Your task to perform on an android device: Go to ESPN.com Image 0: 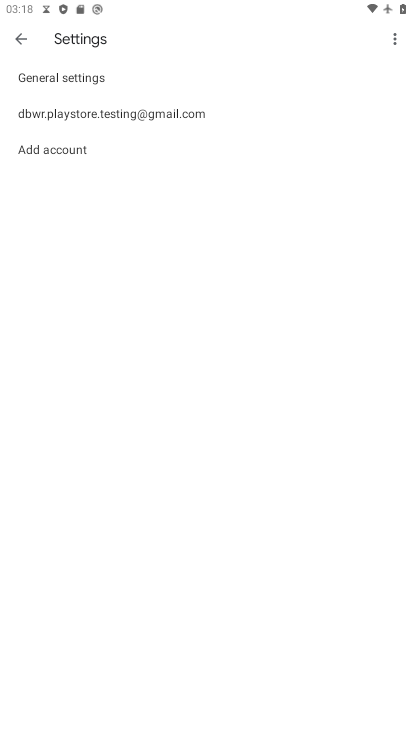
Step 0: press home button
Your task to perform on an android device: Go to ESPN.com Image 1: 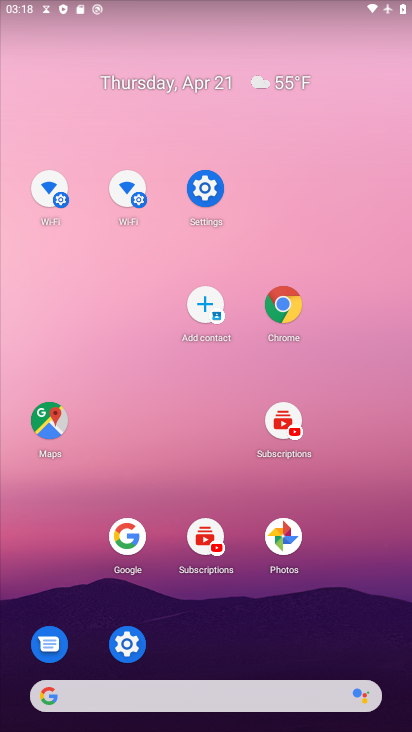
Step 1: drag from (76, 322) to (10, 130)
Your task to perform on an android device: Go to ESPN.com Image 2: 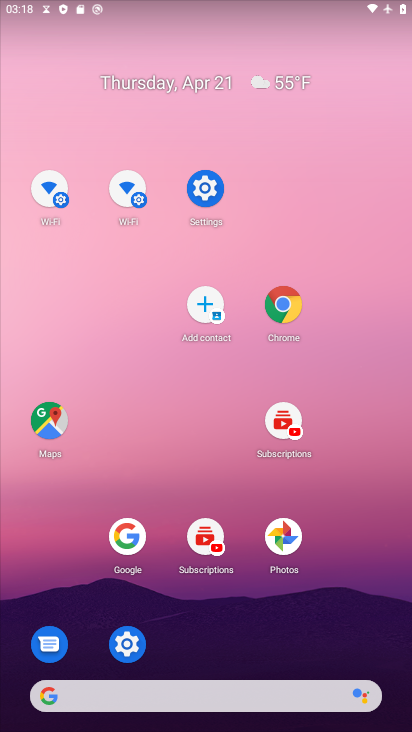
Step 2: drag from (259, 577) to (135, 27)
Your task to perform on an android device: Go to ESPN.com Image 3: 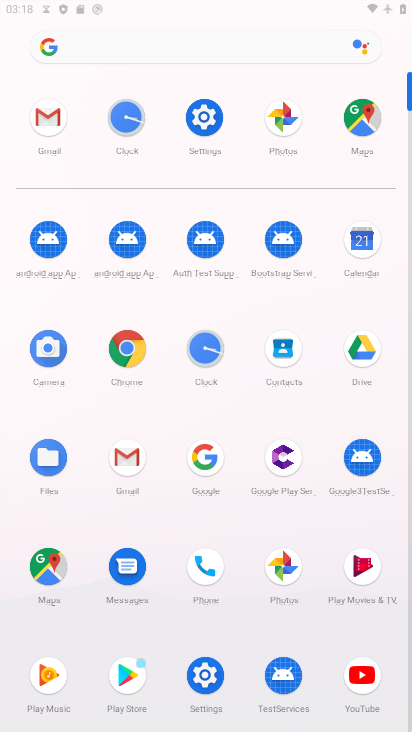
Step 3: drag from (243, 503) to (169, 7)
Your task to perform on an android device: Go to ESPN.com Image 4: 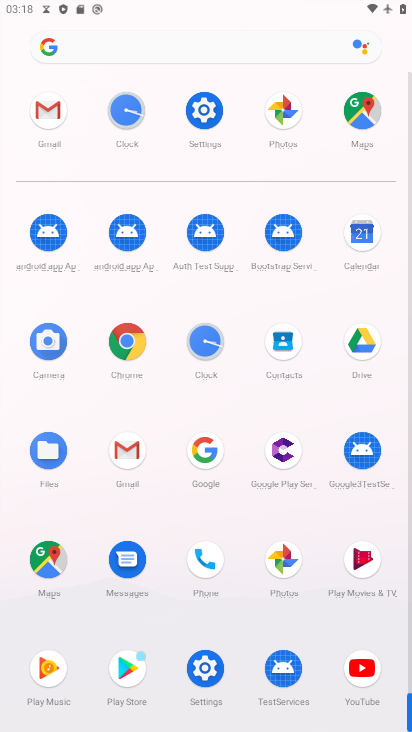
Step 4: click (121, 346)
Your task to perform on an android device: Go to ESPN.com Image 5: 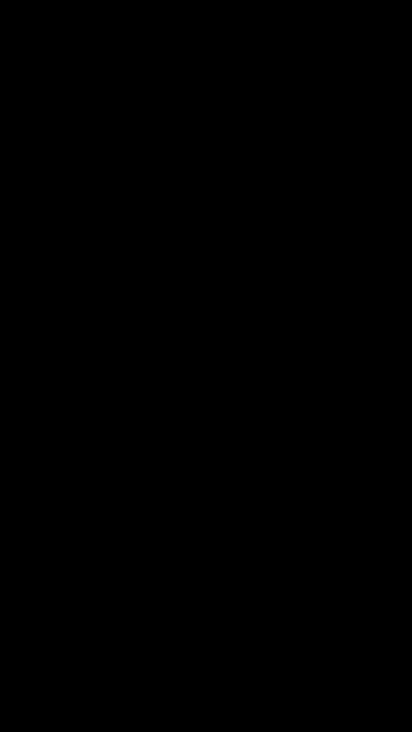
Step 5: click (121, 341)
Your task to perform on an android device: Go to ESPN.com Image 6: 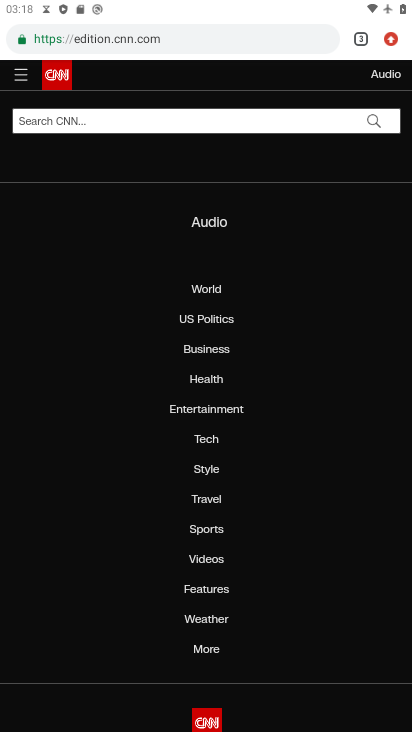
Step 6: drag from (391, 35) to (269, 131)
Your task to perform on an android device: Go to ESPN.com Image 7: 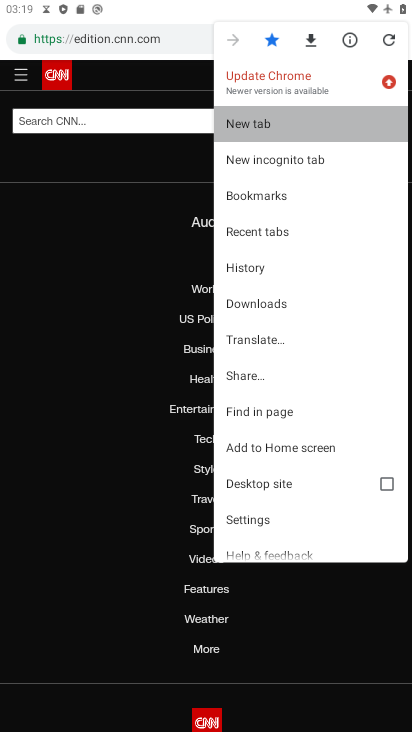
Step 7: click (269, 131)
Your task to perform on an android device: Go to ESPN.com Image 8: 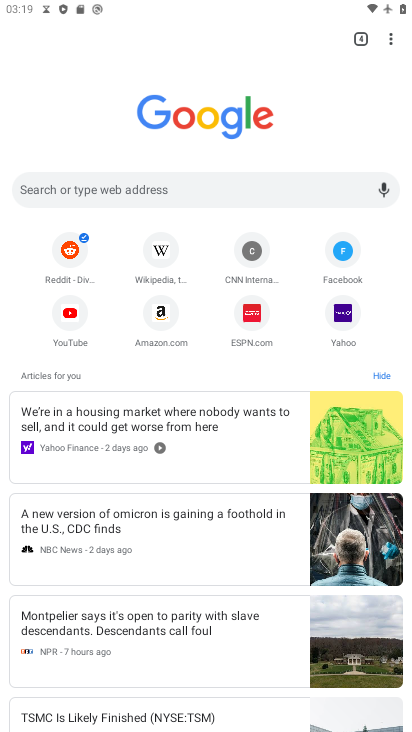
Step 8: click (254, 306)
Your task to perform on an android device: Go to ESPN.com Image 9: 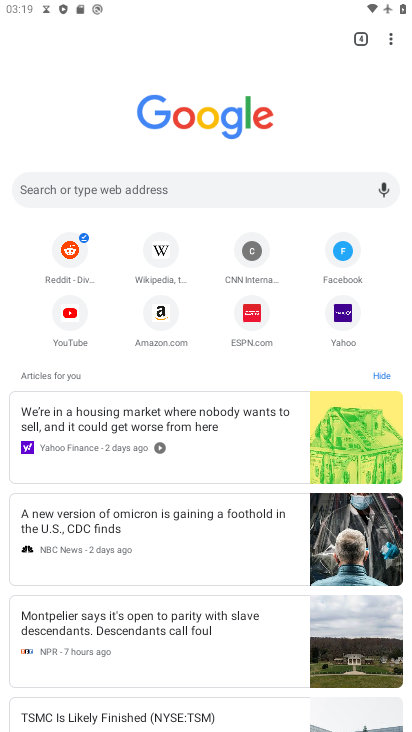
Step 9: click (254, 306)
Your task to perform on an android device: Go to ESPN.com Image 10: 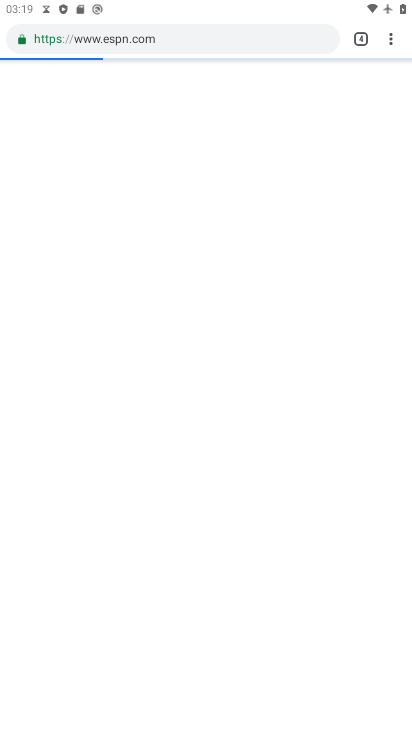
Step 10: click (251, 308)
Your task to perform on an android device: Go to ESPN.com Image 11: 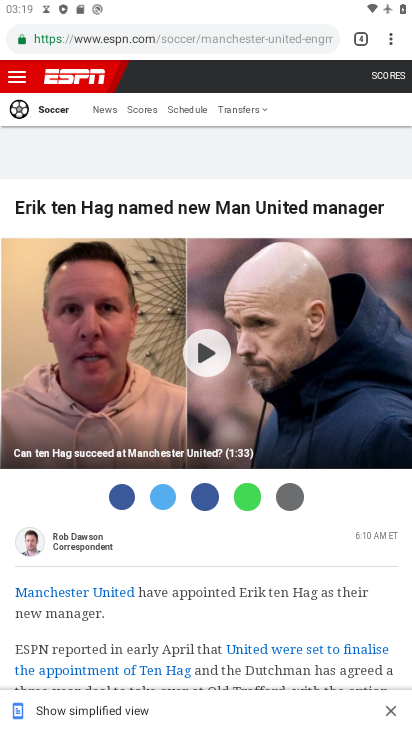
Step 11: drag from (181, 270) to (135, 110)
Your task to perform on an android device: Go to ESPN.com Image 12: 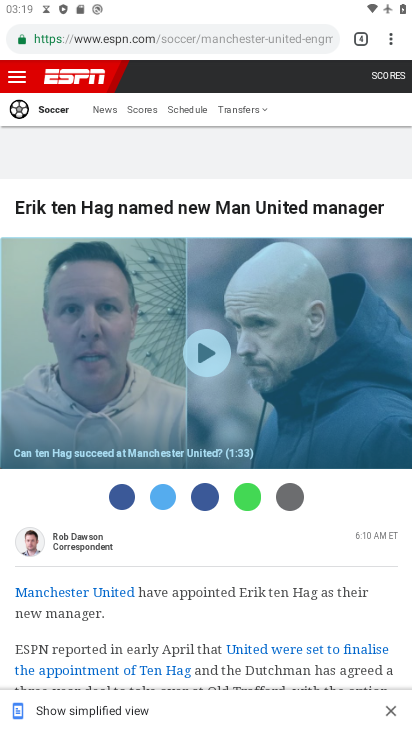
Step 12: drag from (135, 264) to (64, 21)
Your task to perform on an android device: Go to ESPN.com Image 13: 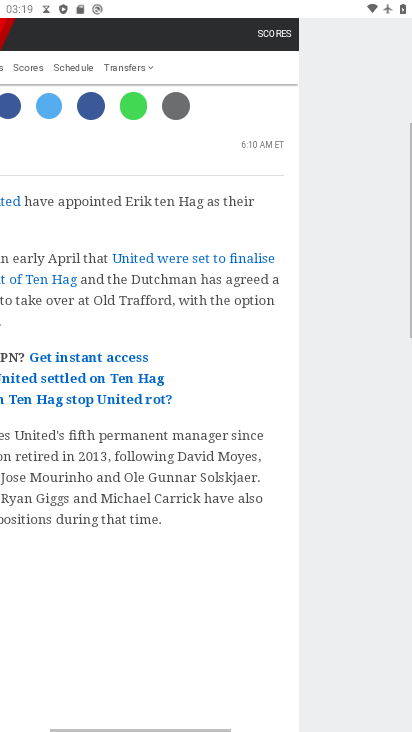
Step 13: drag from (210, 153) to (204, 7)
Your task to perform on an android device: Go to ESPN.com Image 14: 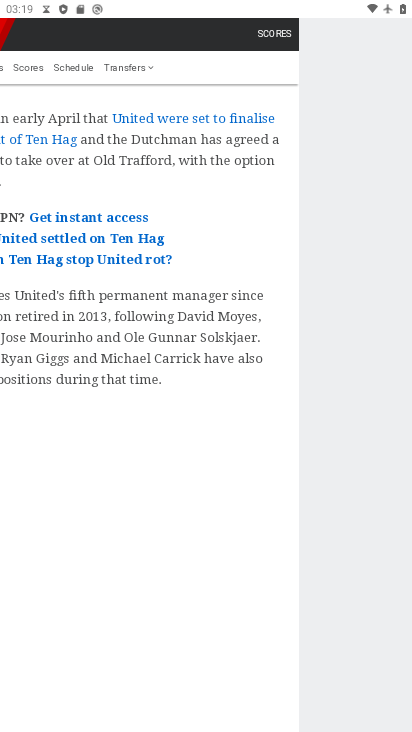
Step 14: drag from (140, 174) to (101, 323)
Your task to perform on an android device: Go to ESPN.com Image 15: 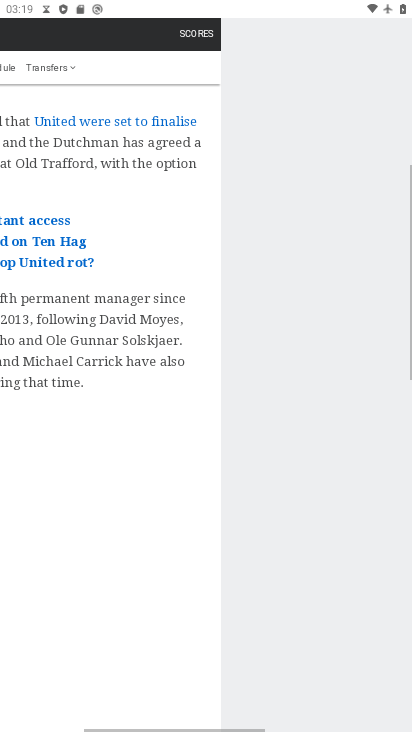
Step 15: drag from (110, 314) to (294, 287)
Your task to perform on an android device: Go to ESPN.com Image 16: 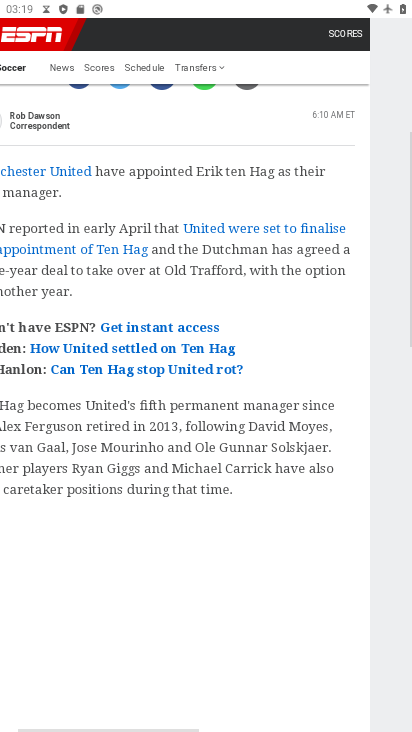
Step 16: click (304, 244)
Your task to perform on an android device: Go to ESPN.com Image 17: 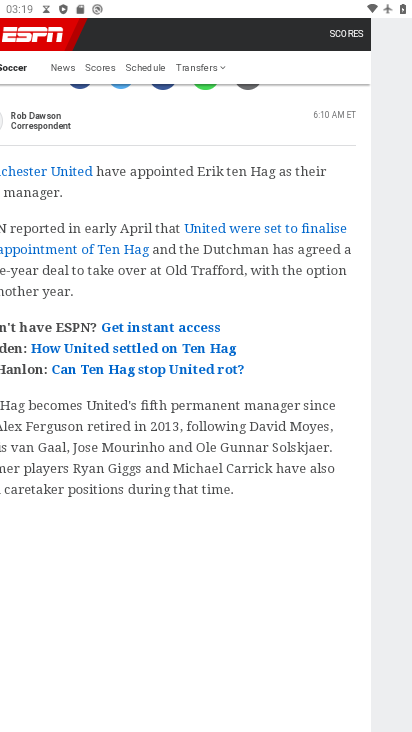
Step 17: task complete